Your task to perform on an android device: turn off airplane mode Image 0: 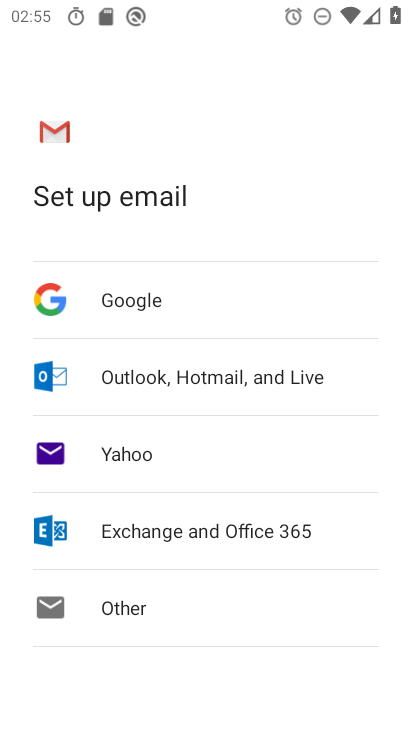
Step 0: press home button
Your task to perform on an android device: turn off airplane mode Image 1: 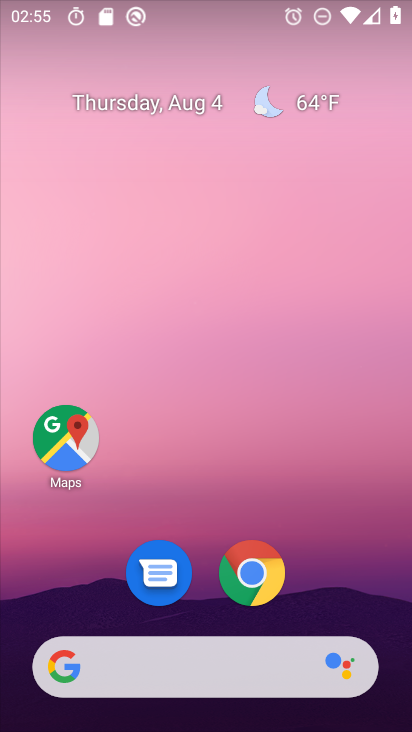
Step 1: drag from (379, 547) to (277, 109)
Your task to perform on an android device: turn off airplane mode Image 2: 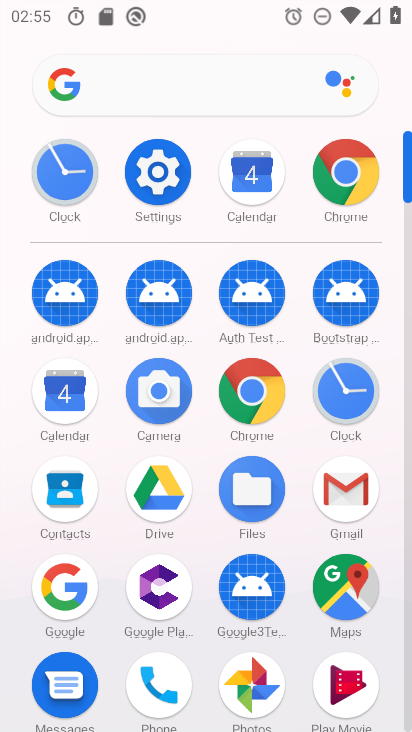
Step 2: drag from (248, 5) to (356, 6)
Your task to perform on an android device: turn off airplane mode Image 3: 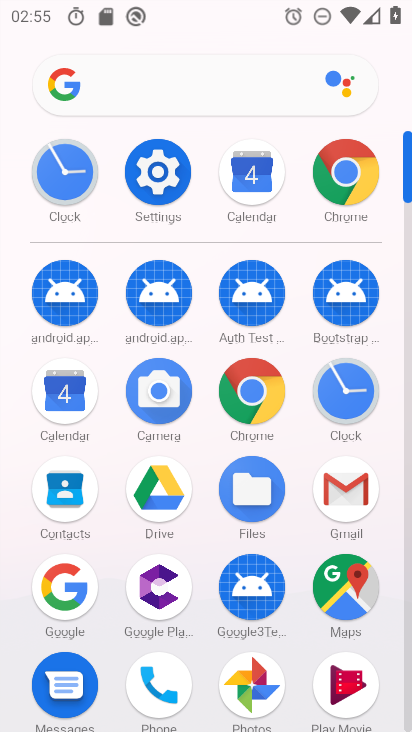
Step 3: click (187, 150)
Your task to perform on an android device: turn off airplane mode Image 4: 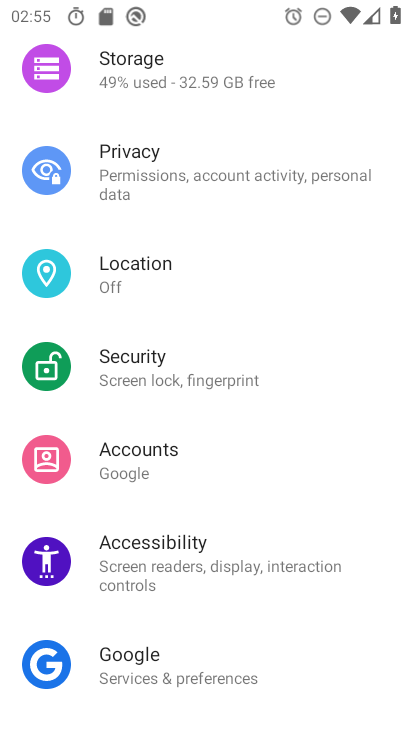
Step 4: drag from (362, 108) to (288, 521)
Your task to perform on an android device: turn off airplane mode Image 5: 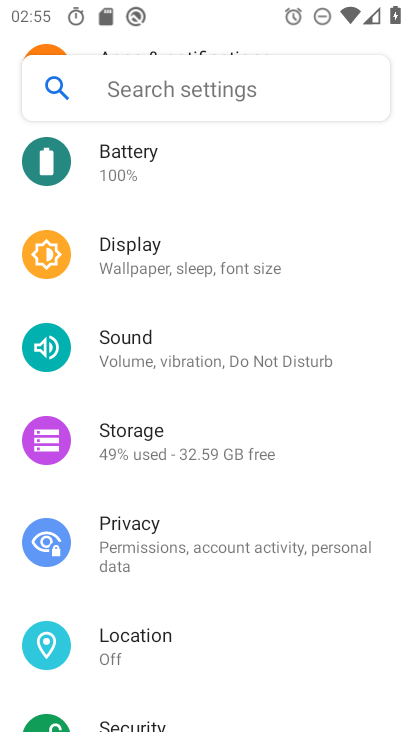
Step 5: drag from (246, 171) to (261, 529)
Your task to perform on an android device: turn off airplane mode Image 6: 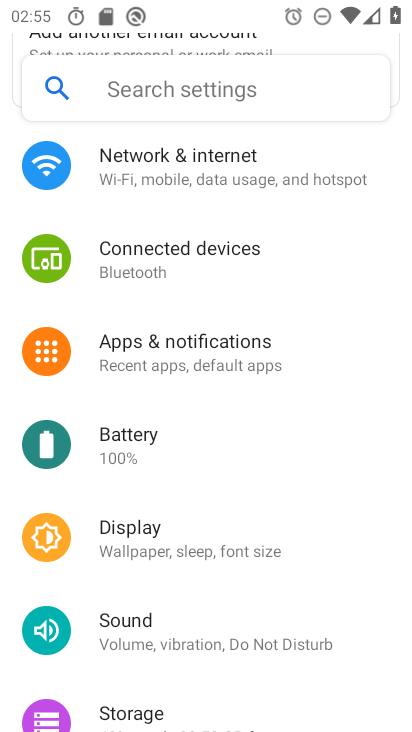
Step 6: click (295, 191)
Your task to perform on an android device: turn off airplane mode Image 7: 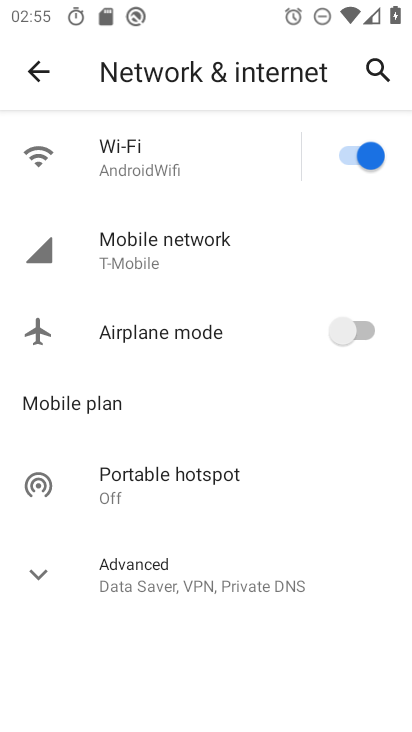
Step 7: task complete